Your task to perform on an android device: change the clock style Image 0: 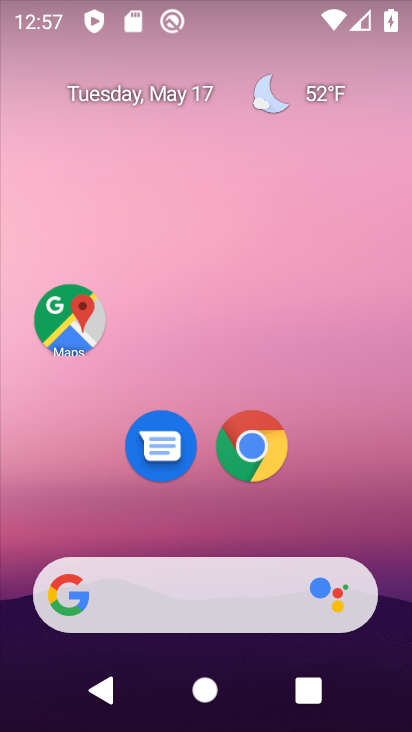
Step 0: drag from (376, 499) to (285, 118)
Your task to perform on an android device: change the clock style Image 1: 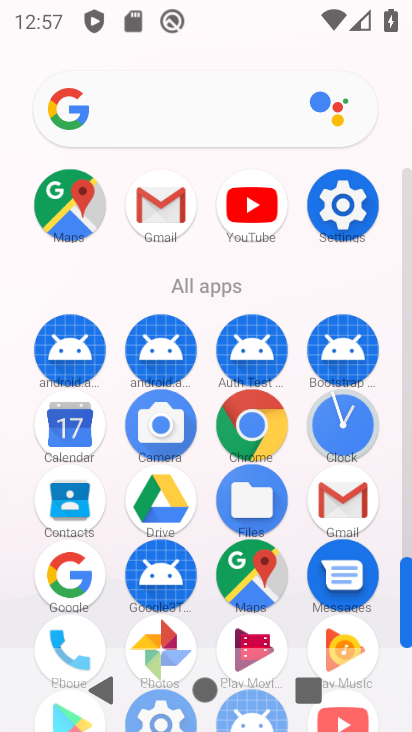
Step 1: click (345, 447)
Your task to perform on an android device: change the clock style Image 2: 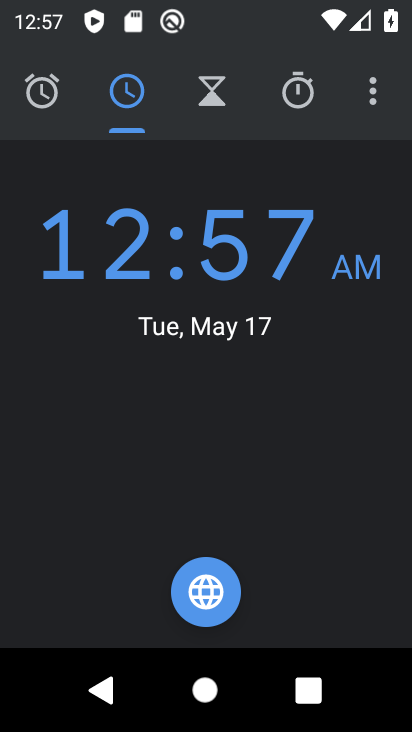
Step 2: click (376, 110)
Your task to perform on an android device: change the clock style Image 3: 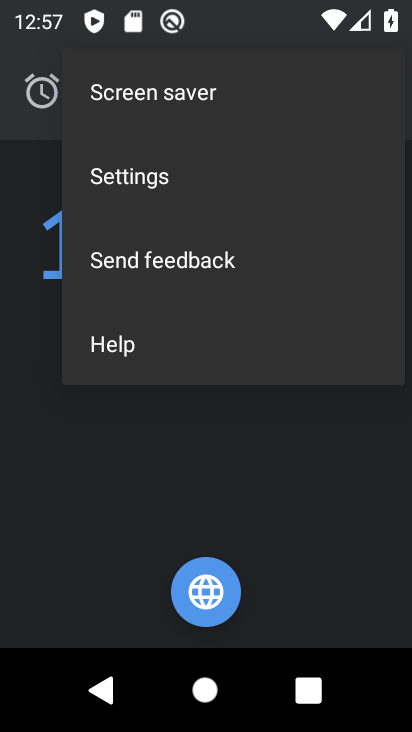
Step 3: click (139, 190)
Your task to perform on an android device: change the clock style Image 4: 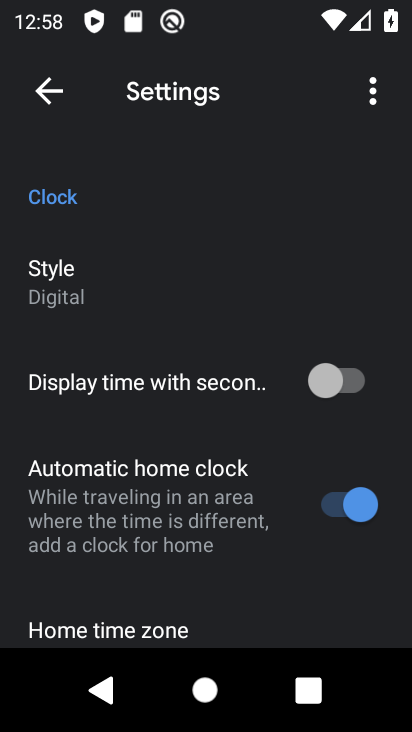
Step 4: click (126, 296)
Your task to perform on an android device: change the clock style Image 5: 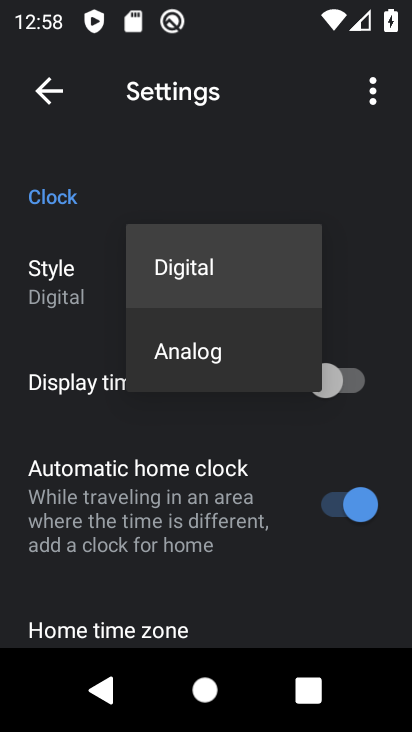
Step 5: click (176, 347)
Your task to perform on an android device: change the clock style Image 6: 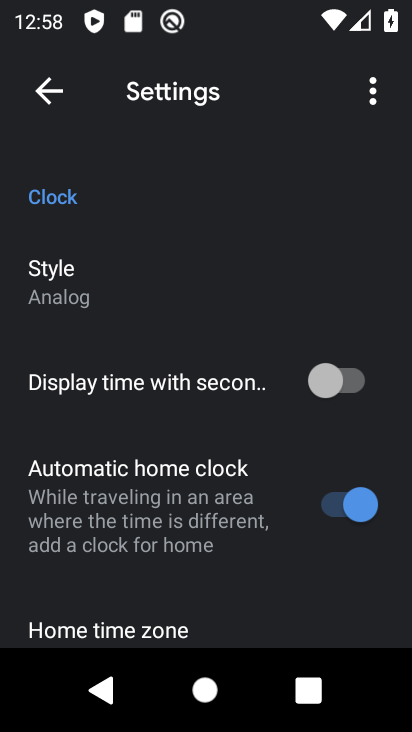
Step 6: task complete